Your task to perform on an android device: Go to calendar. Show me events next week Image 0: 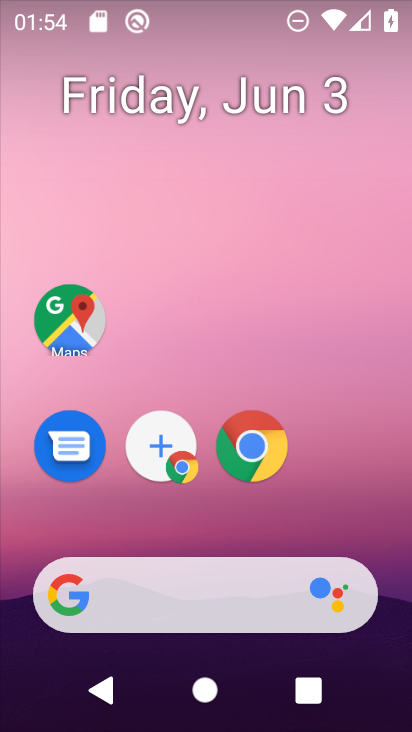
Step 0: drag from (164, 596) to (251, 91)
Your task to perform on an android device: Go to calendar. Show me events next week Image 1: 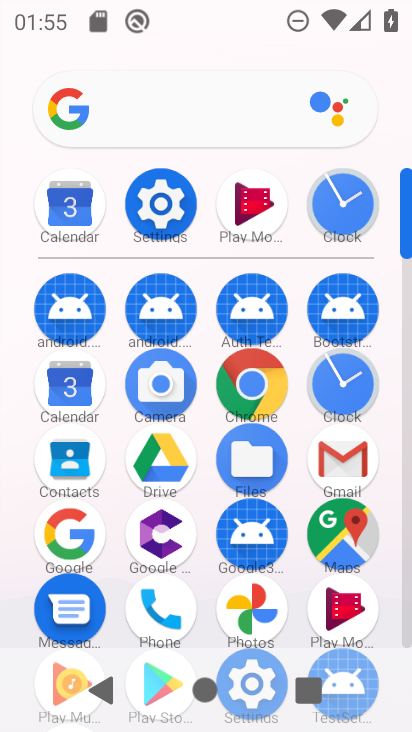
Step 1: click (52, 390)
Your task to perform on an android device: Go to calendar. Show me events next week Image 2: 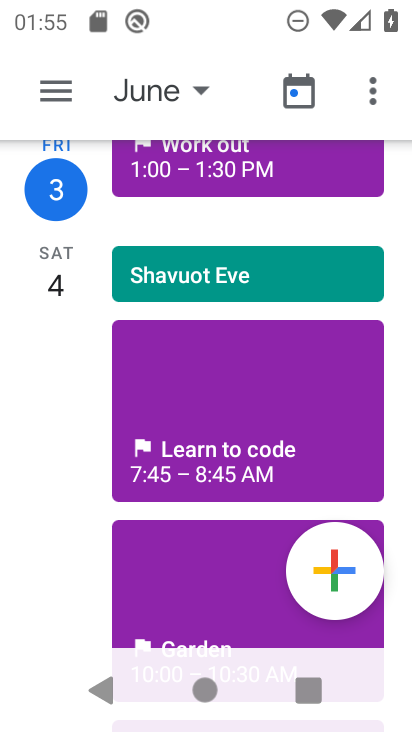
Step 2: click (156, 102)
Your task to perform on an android device: Go to calendar. Show me events next week Image 3: 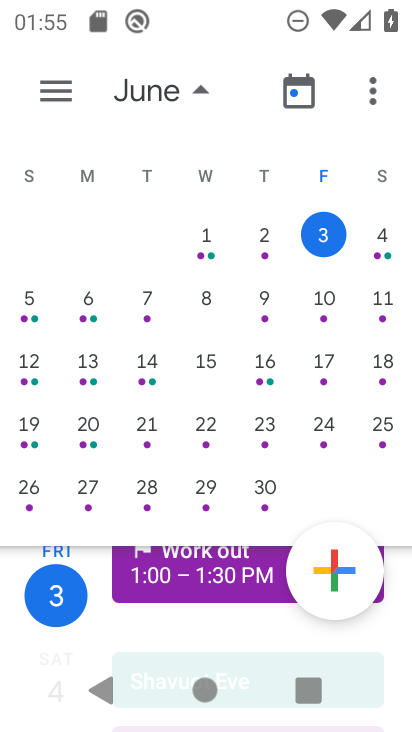
Step 3: click (25, 304)
Your task to perform on an android device: Go to calendar. Show me events next week Image 4: 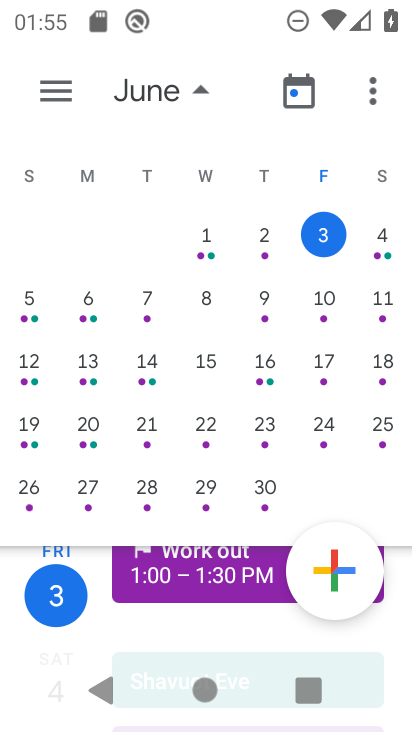
Step 4: click (32, 304)
Your task to perform on an android device: Go to calendar. Show me events next week Image 5: 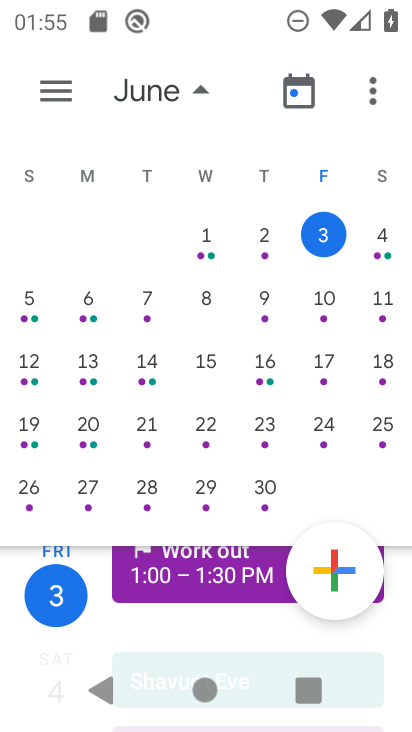
Step 5: click (32, 303)
Your task to perform on an android device: Go to calendar. Show me events next week Image 6: 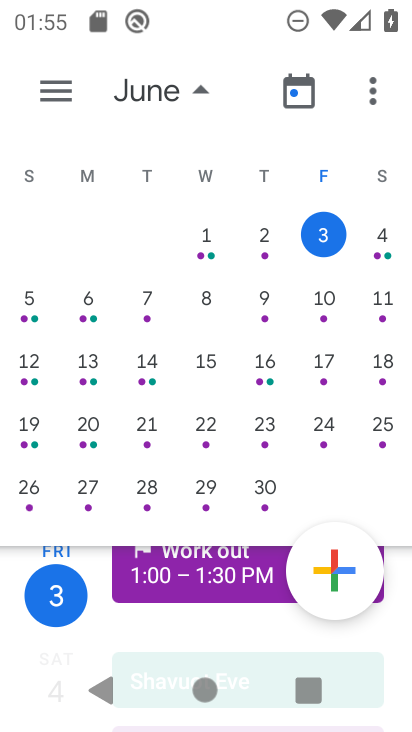
Step 6: click (86, 303)
Your task to perform on an android device: Go to calendar. Show me events next week Image 7: 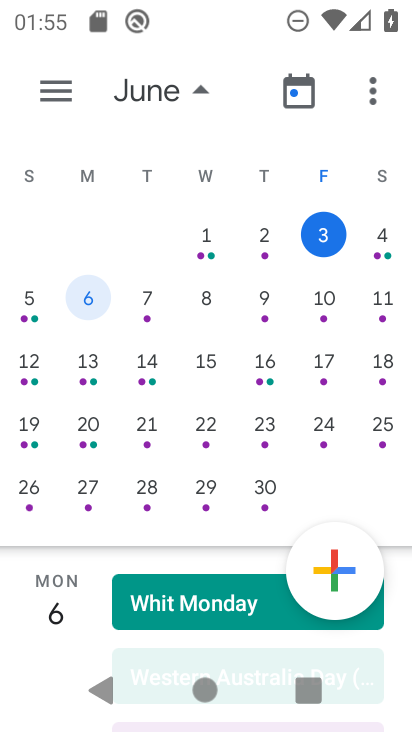
Step 7: click (87, 297)
Your task to perform on an android device: Go to calendar. Show me events next week Image 8: 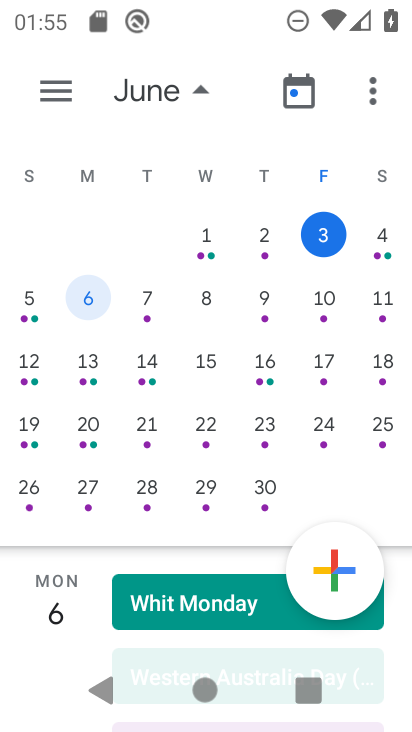
Step 8: task complete